Your task to perform on an android device: Show me the alarms in the clock app Image 0: 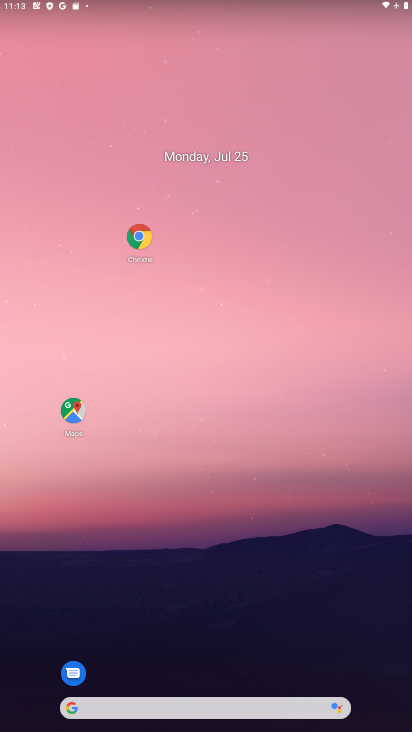
Step 0: drag from (247, 679) to (283, 107)
Your task to perform on an android device: Show me the alarms in the clock app Image 1: 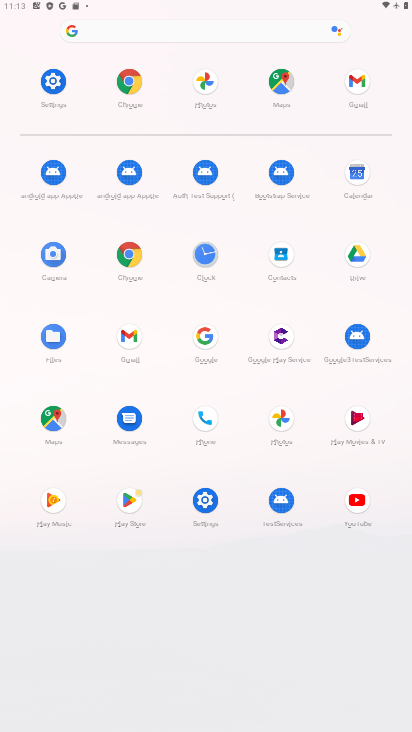
Step 1: click (206, 247)
Your task to perform on an android device: Show me the alarms in the clock app Image 2: 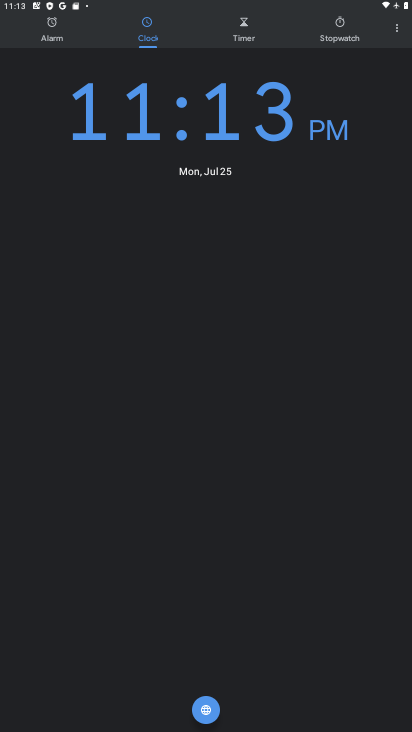
Step 2: click (44, 43)
Your task to perform on an android device: Show me the alarms in the clock app Image 3: 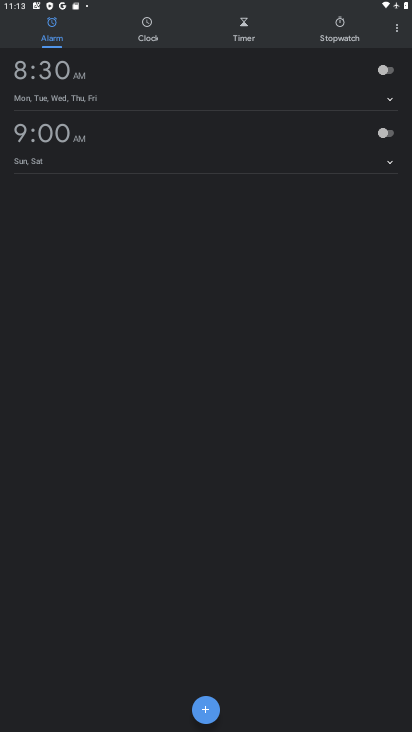
Step 3: click (389, 69)
Your task to perform on an android device: Show me the alarms in the clock app Image 4: 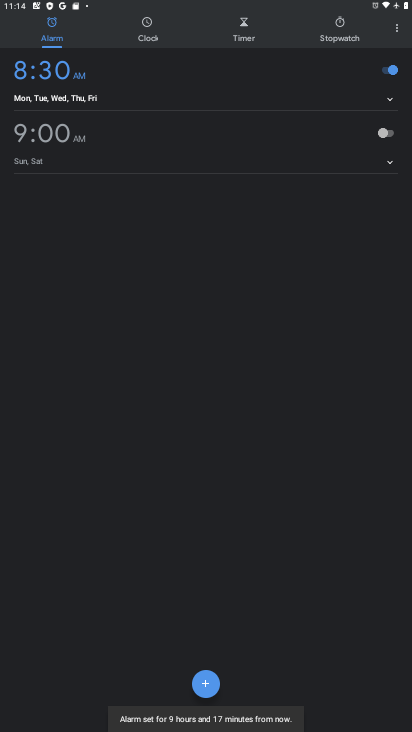
Step 4: task complete